Your task to perform on an android device: find snoozed emails in the gmail app Image 0: 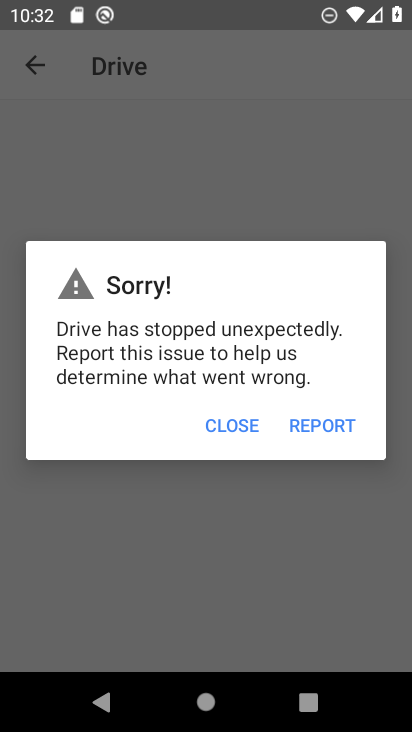
Step 0: press home button
Your task to perform on an android device: find snoozed emails in the gmail app Image 1: 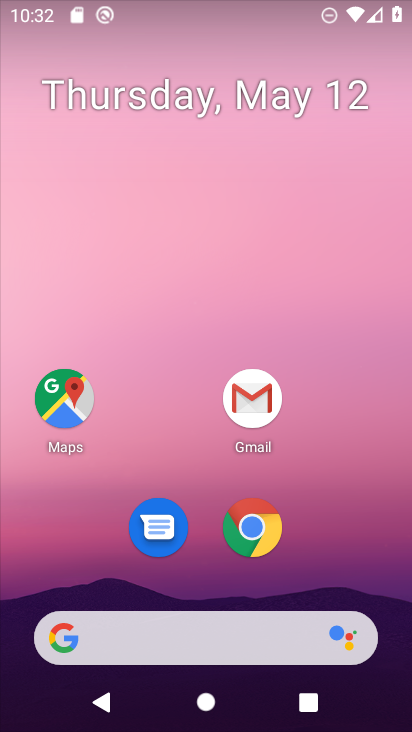
Step 1: click (254, 412)
Your task to perform on an android device: find snoozed emails in the gmail app Image 2: 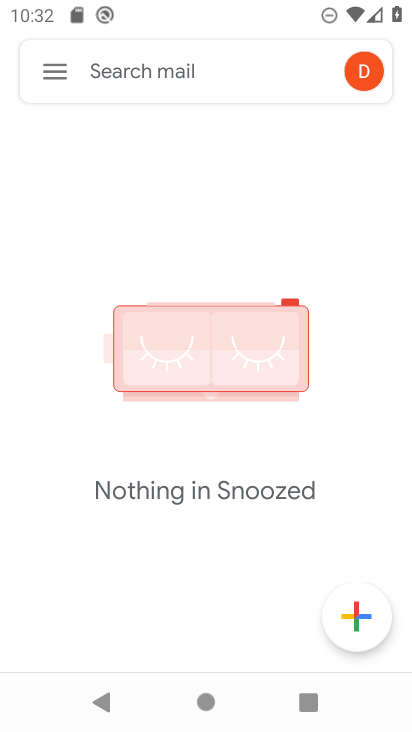
Step 2: click (48, 90)
Your task to perform on an android device: find snoozed emails in the gmail app Image 3: 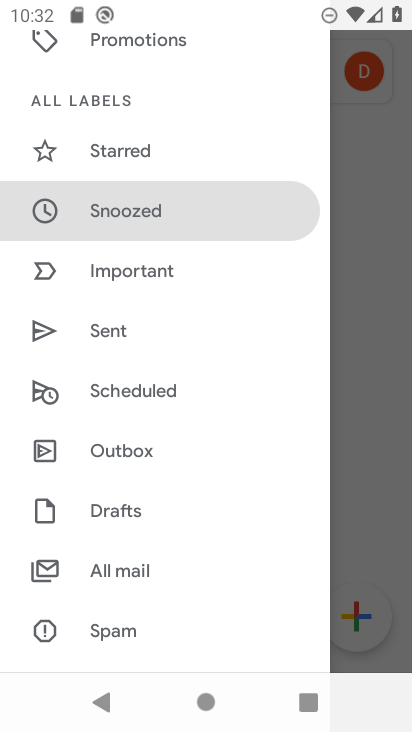
Step 3: click (124, 216)
Your task to perform on an android device: find snoozed emails in the gmail app Image 4: 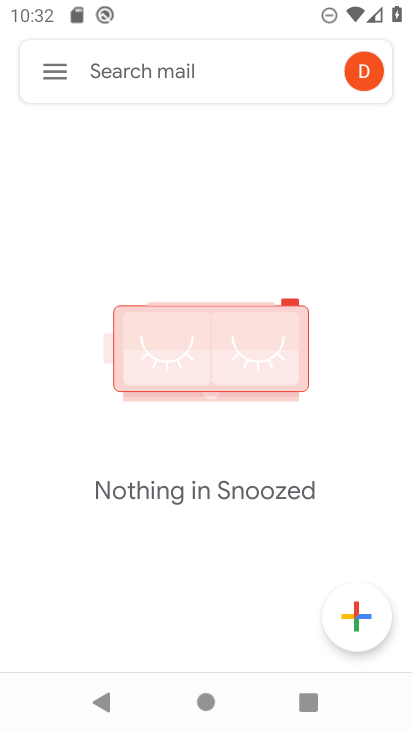
Step 4: task complete